Your task to perform on an android device: toggle pop-ups in chrome Image 0: 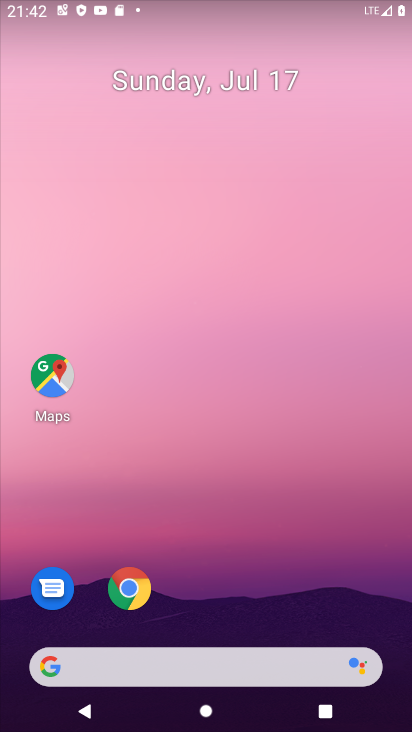
Step 0: press home button
Your task to perform on an android device: toggle pop-ups in chrome Image 1: 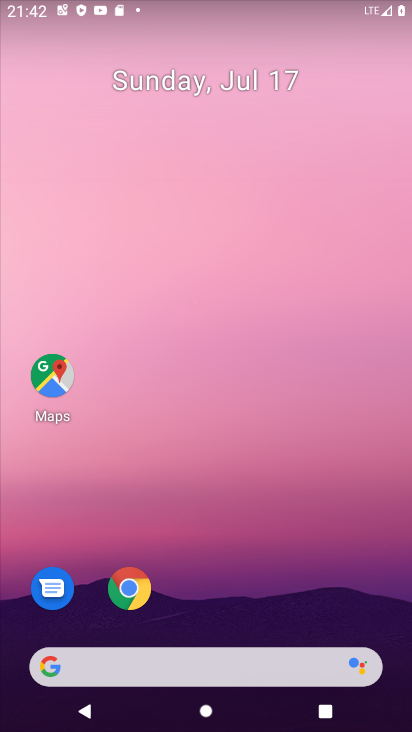
Step 1: press home button
Your task to perform on an android device: toggle pop-ups in chrome Image 2: 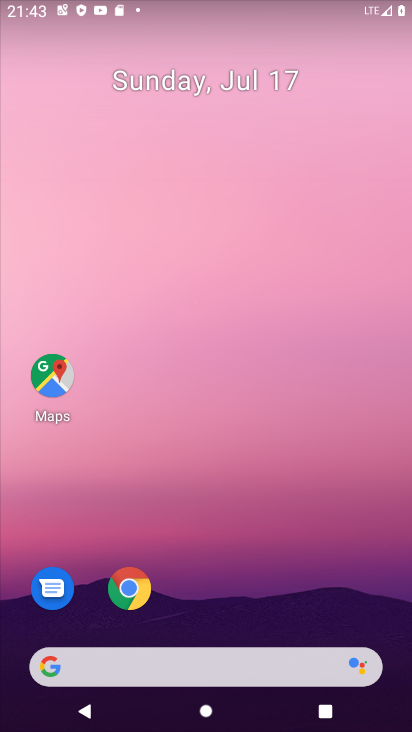
Step 2: click (156, 584)
Your task to perform on an android device: toggle pop-ups in chrome Image 3: 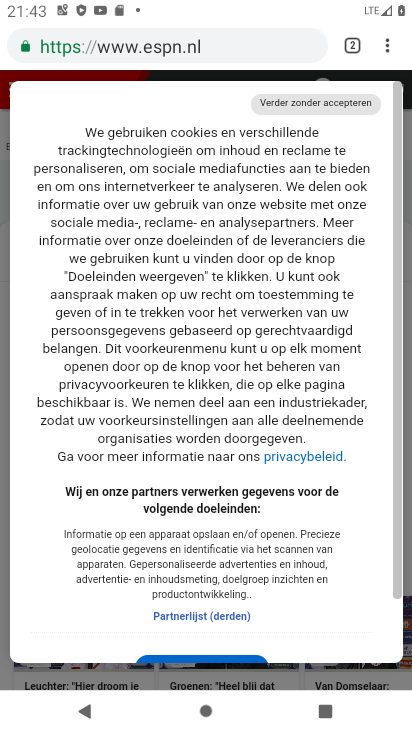
Step 3: click (386, 46)
Your task to perform on an android device: toggle pop-ups in chrome Image 4: 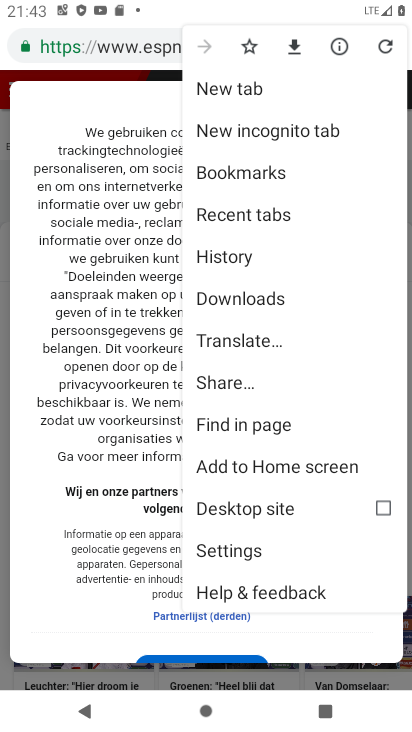
Step 4: click (229, 550)
Your task to perform on an android device: toggle pop-ups in chrome Image 5: 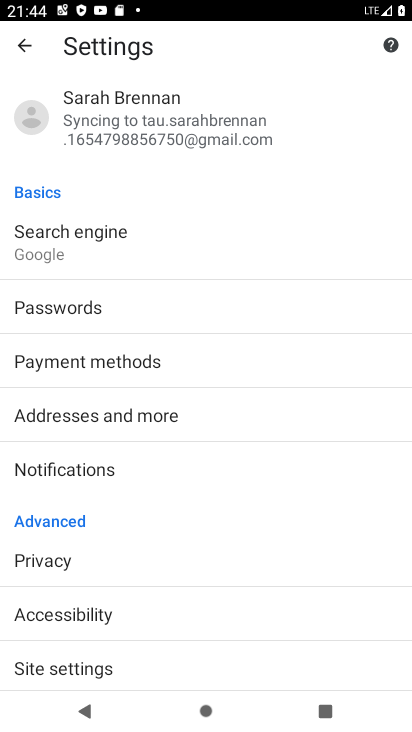
Step 5: drag from (113, 549) to (154, 194)
Your task to perform on an android device: toggle pop-ups in chrome Image 6: 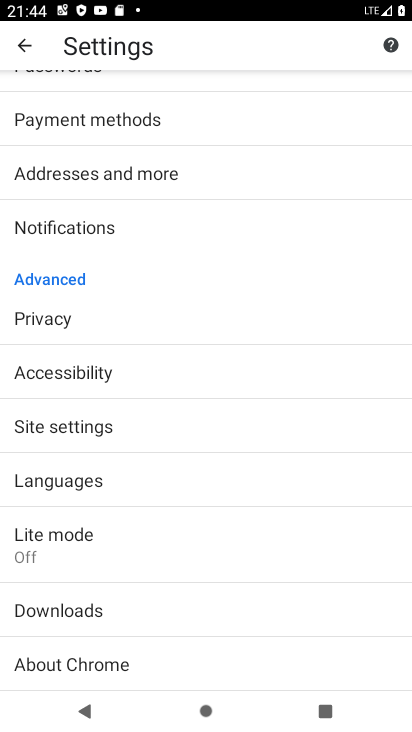
Step 6: click (100, 432)
Your task to perform on an android device: toggle pop-ups in chrome Image 7: 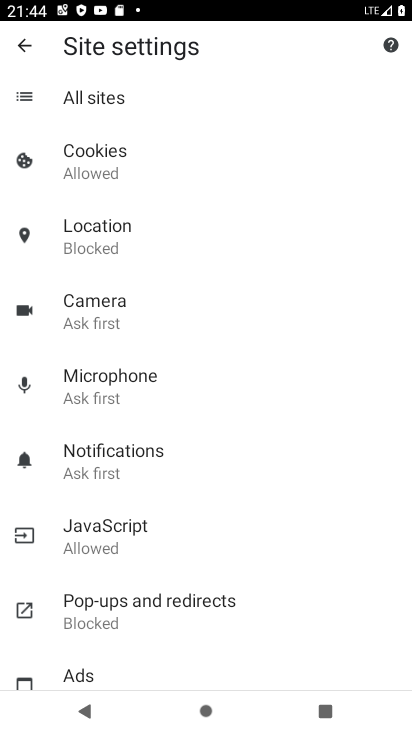
Step 7: click (116, 611)
Your task to perform on an android device: toggle pop-ups in chrome Image 8: 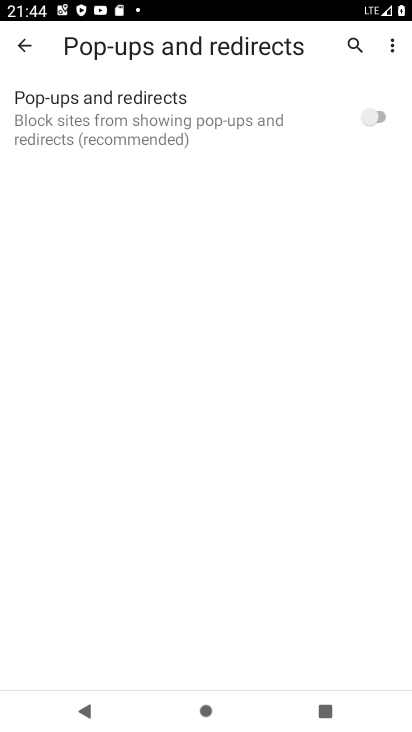
Step 8: click (197, 138)
Your task to perform on an android device: toggle pop-ups in chrome Image 9: 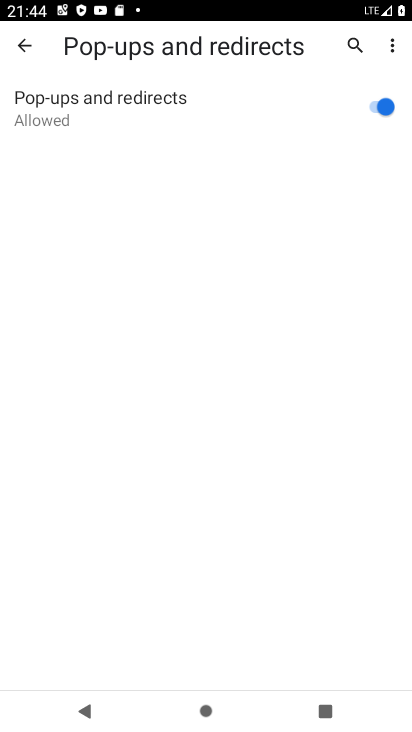
Step 9: task complete